Your task to perform on an android device: uninstall "Google Keep" Image 0: 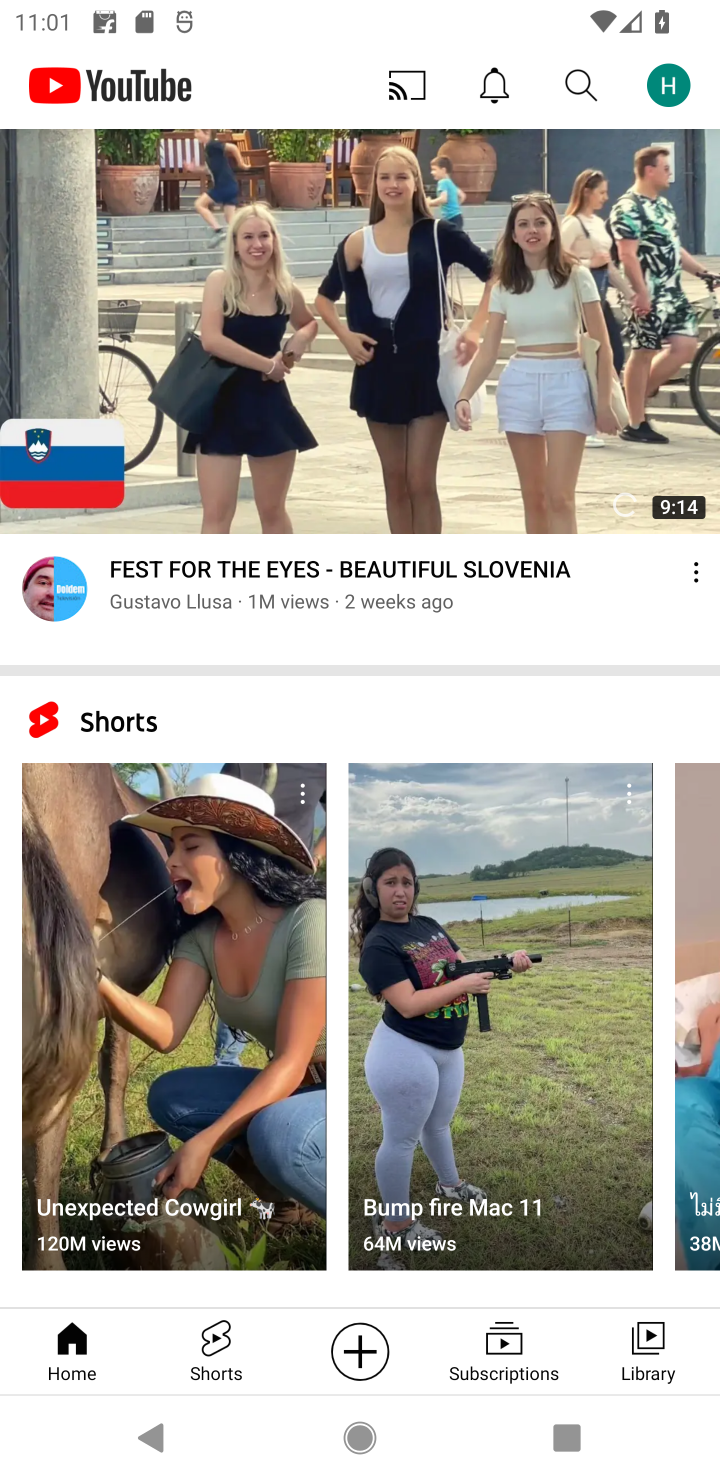
Step 0: press home button
Your task to perform on an android device: uninstall "Google Keep" Image 1: 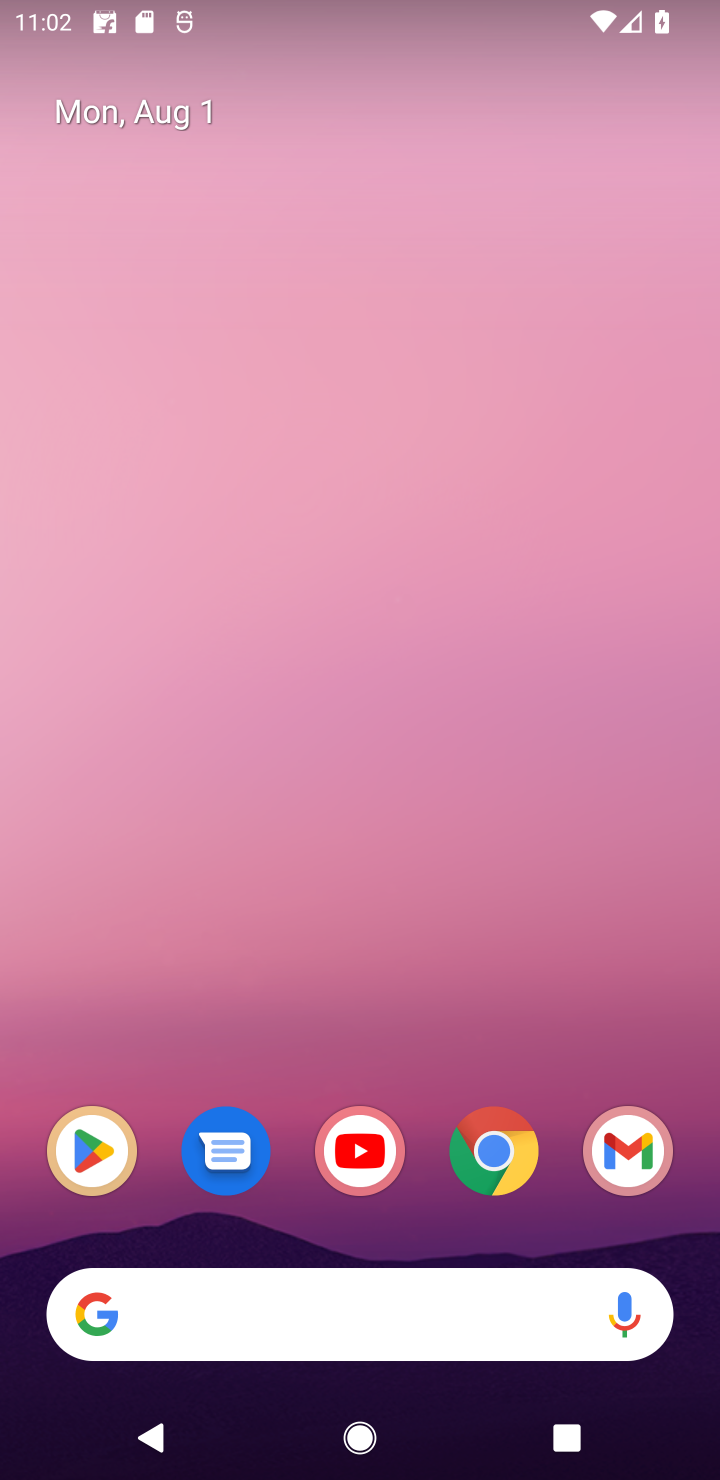
Step 1: press back button
Your task to perform on an android device: uninstall "Google Keep" Image 2: 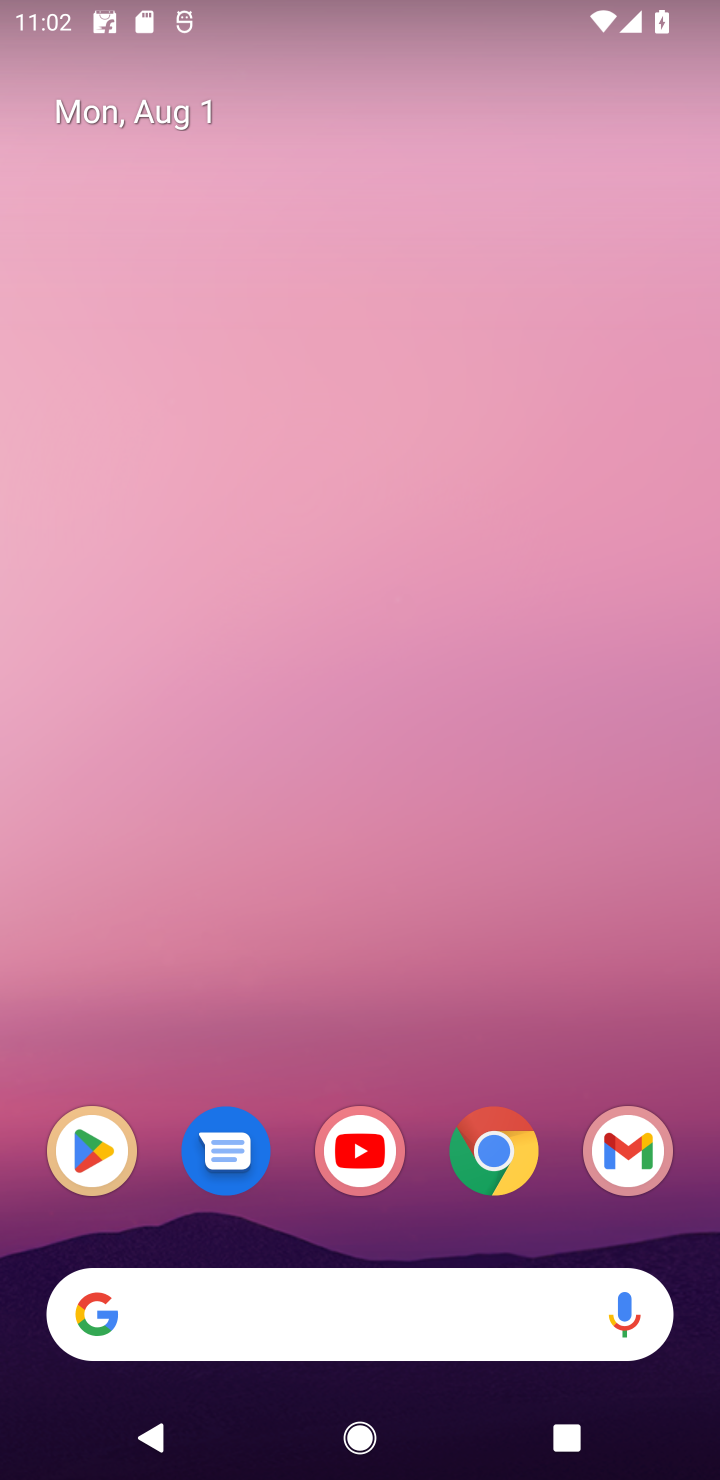
Step 2: click (82, 1155)
Your task to perform on an android device: uninstall "Google Keep" Image 3: 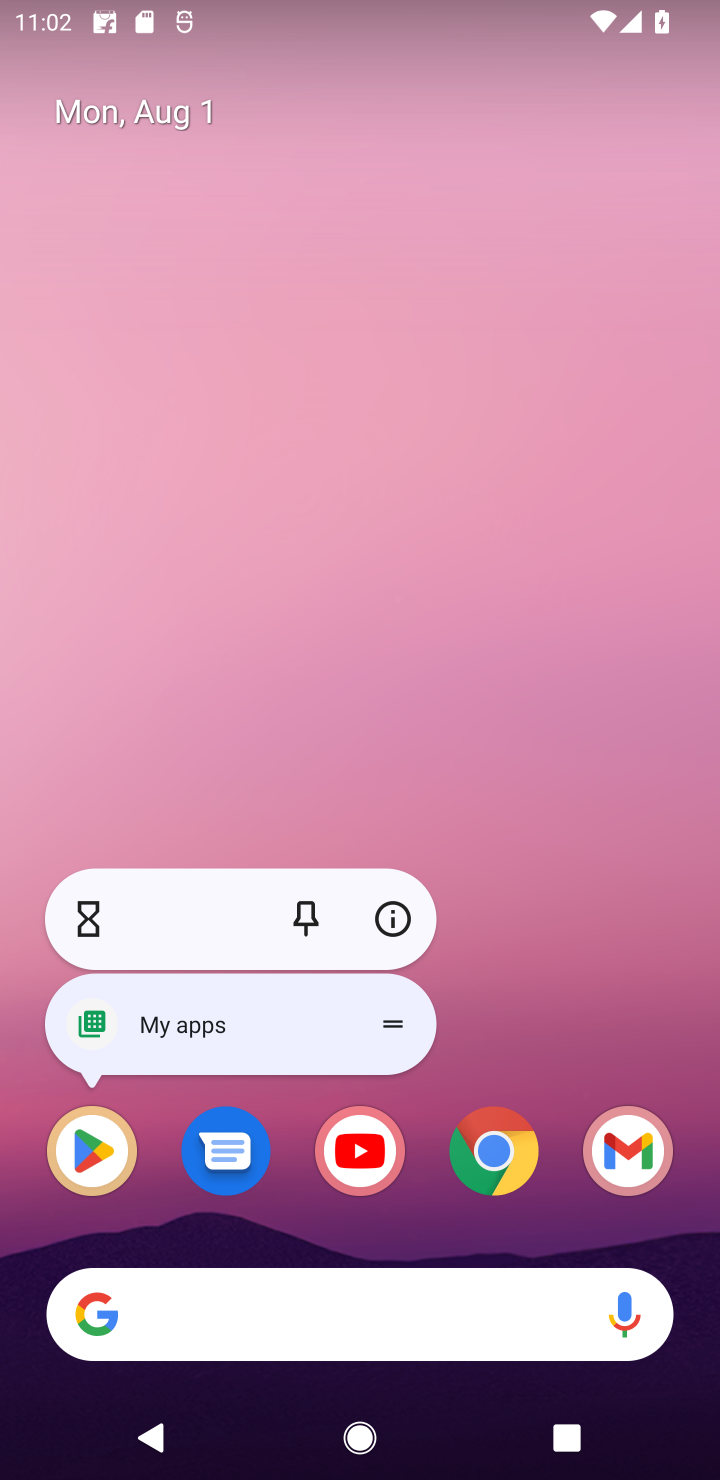
Step 3: click (90, 1160)
Your task to perform on an android device: uninstall "Google Keep" Image 4: 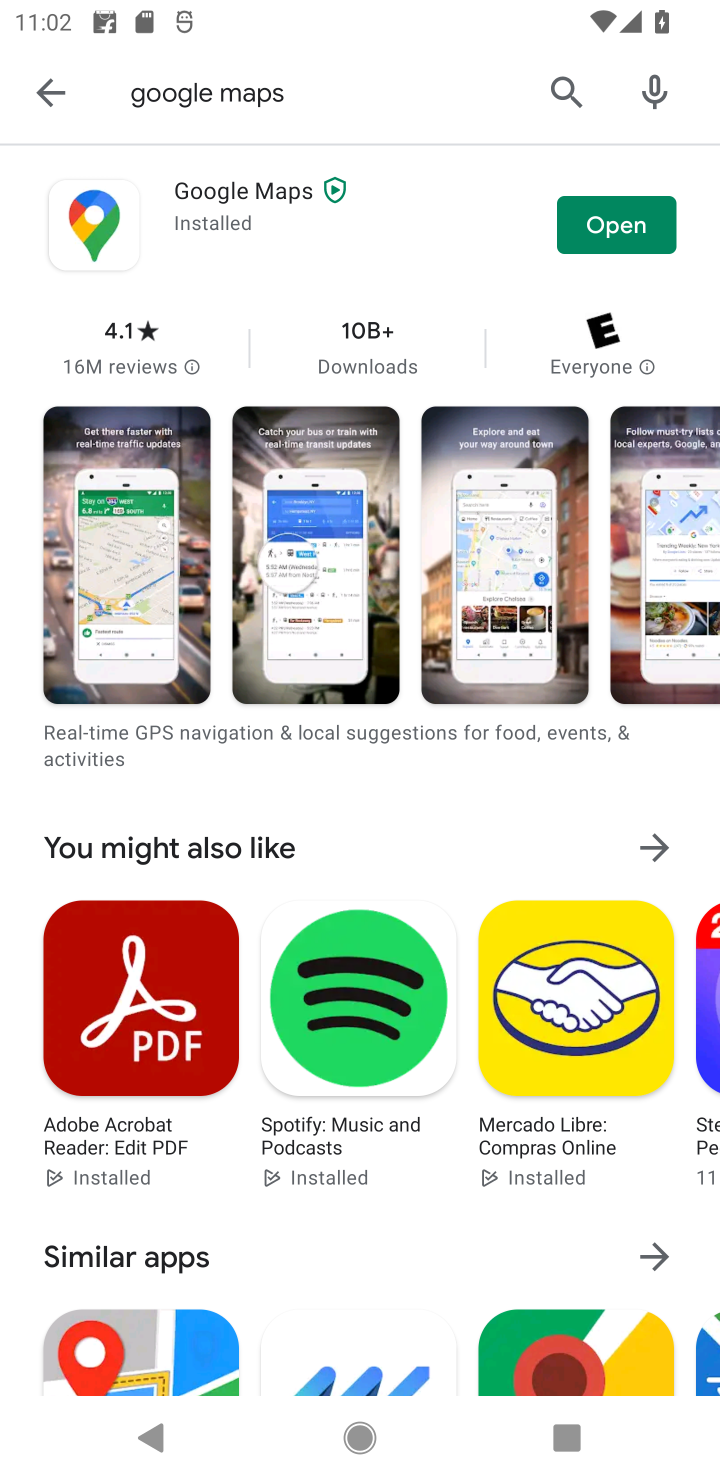
Step 4: click (631, 97)
Your task to perform on an android device: uninstall "Google Keep" Image 5: 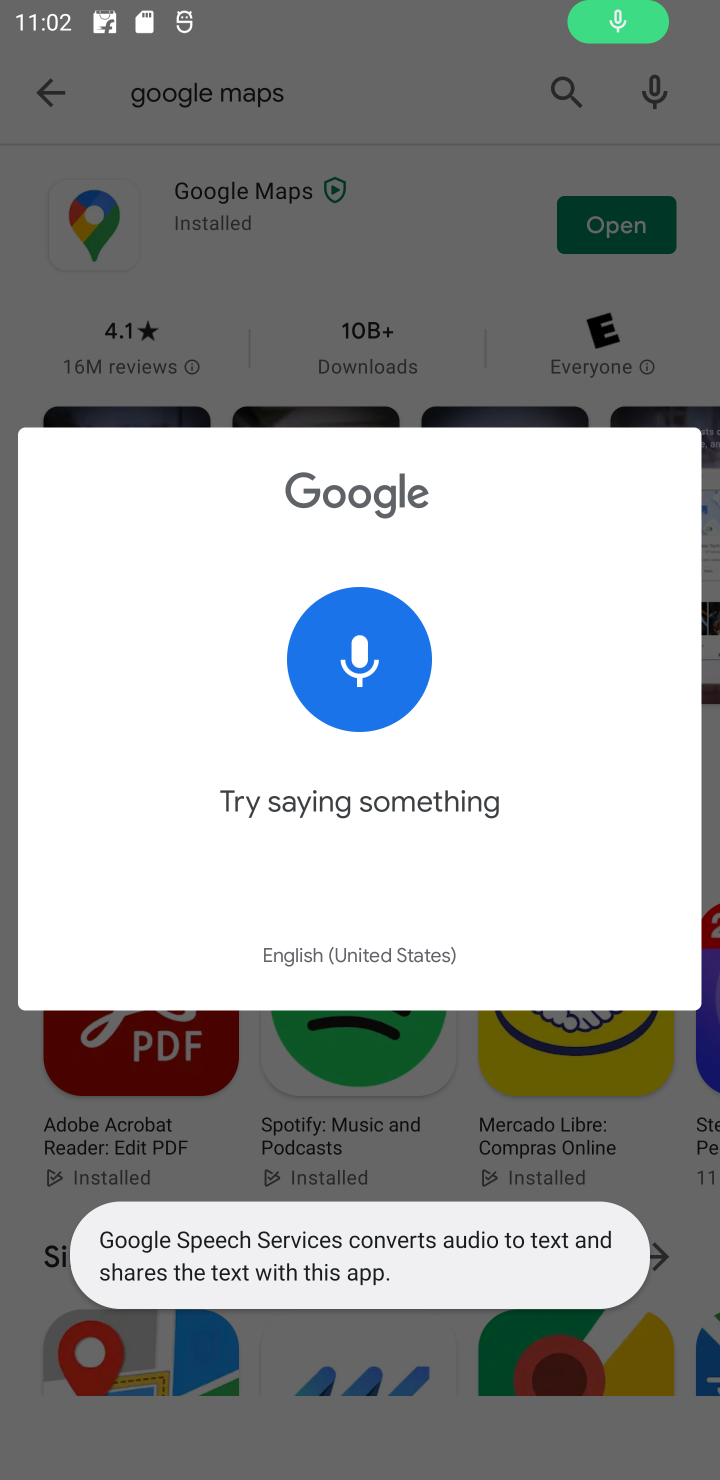
Step 5: click (560, 90)
Your task to perform on an android device: uninstall "Google Keep" Image 6: 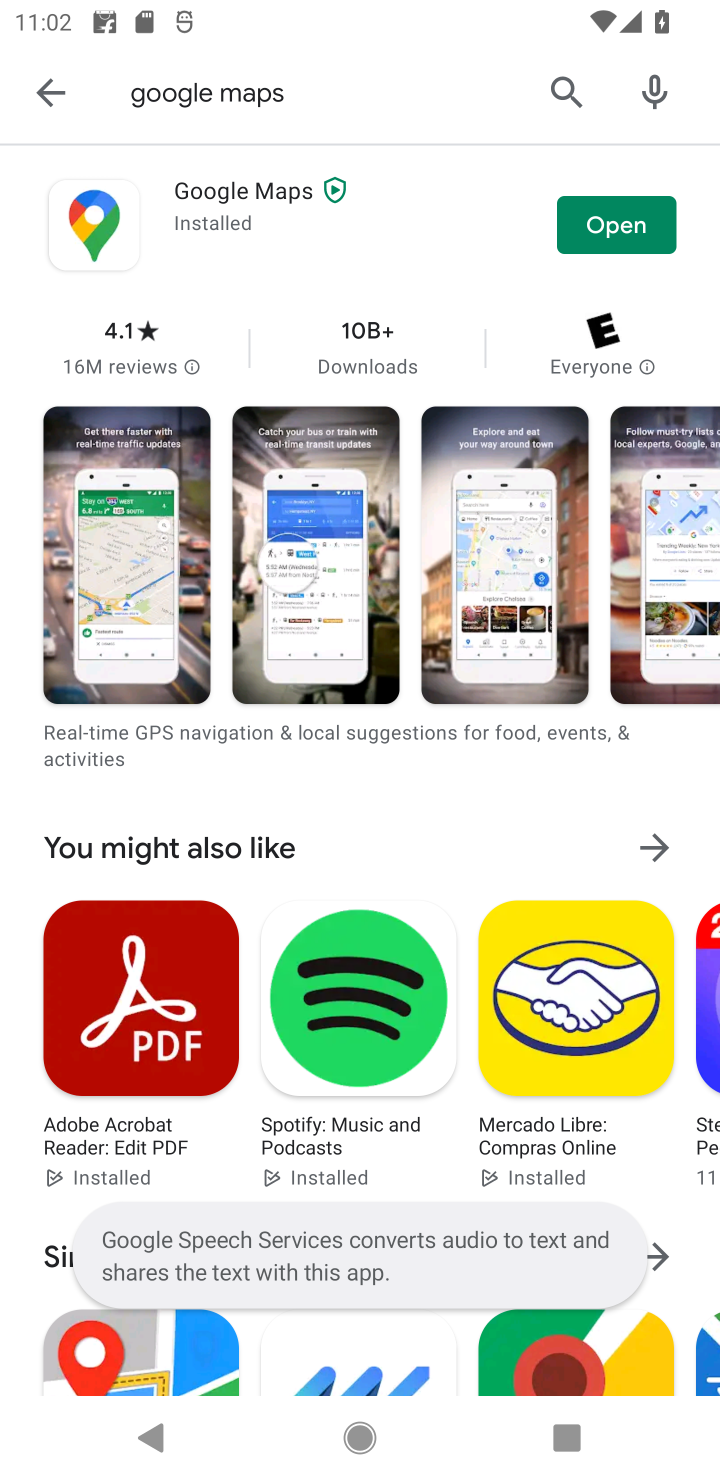
Step 6: click (563, 101)
Your task to perform on an android device: uninstall "Google Keep" Image 7: 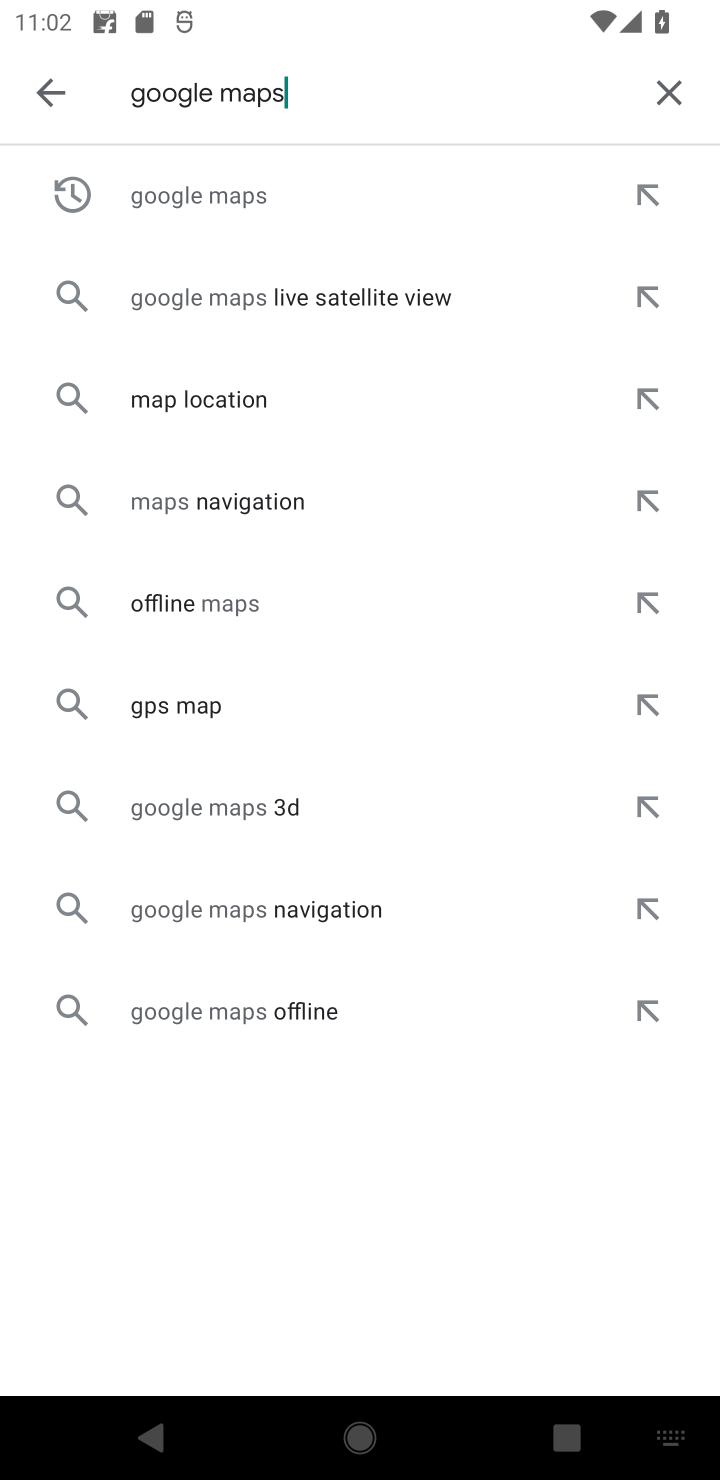
Step 7: click (650, 90)
Your task to perform on an android device: uninstall "Google Keep" Image 8: 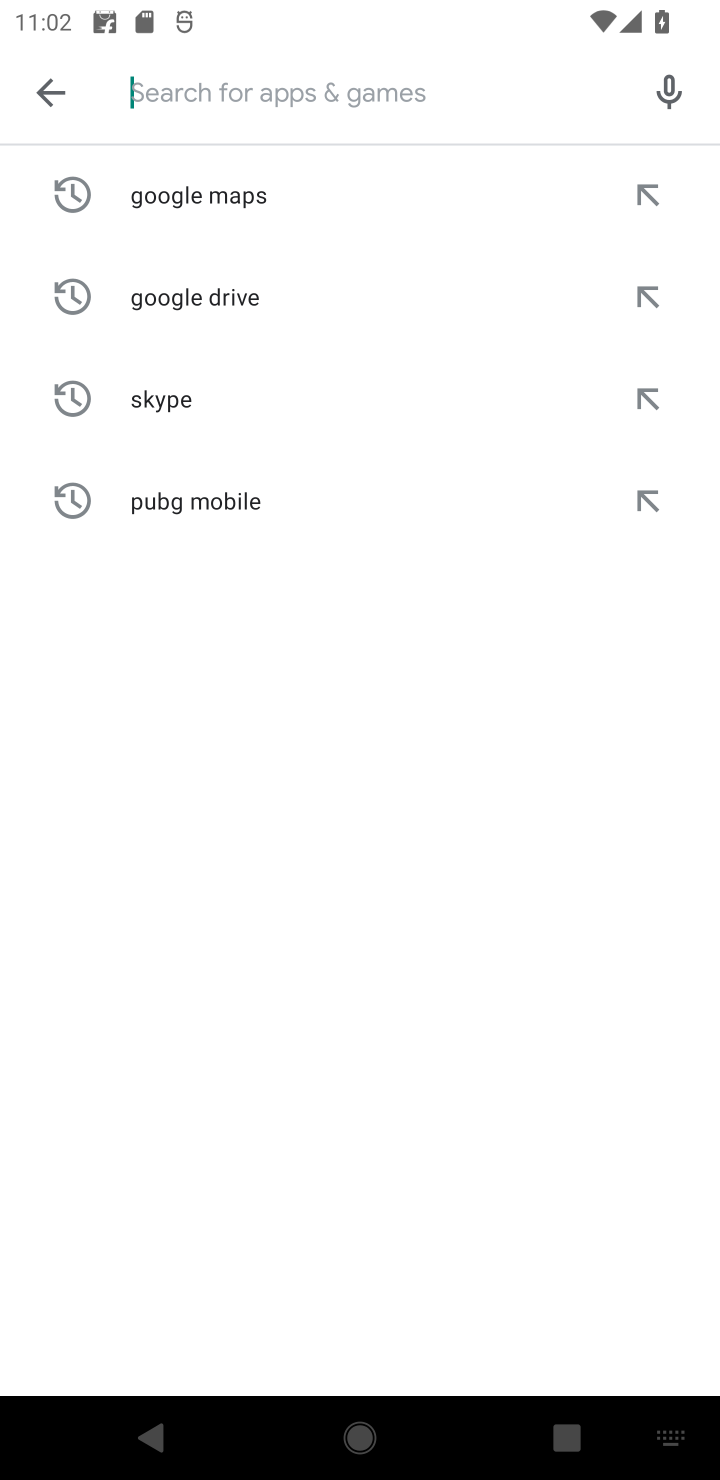
Step 8: click (693, 1317)
Your task to perform on an android device: uninstall "Google Keep" Image 9: 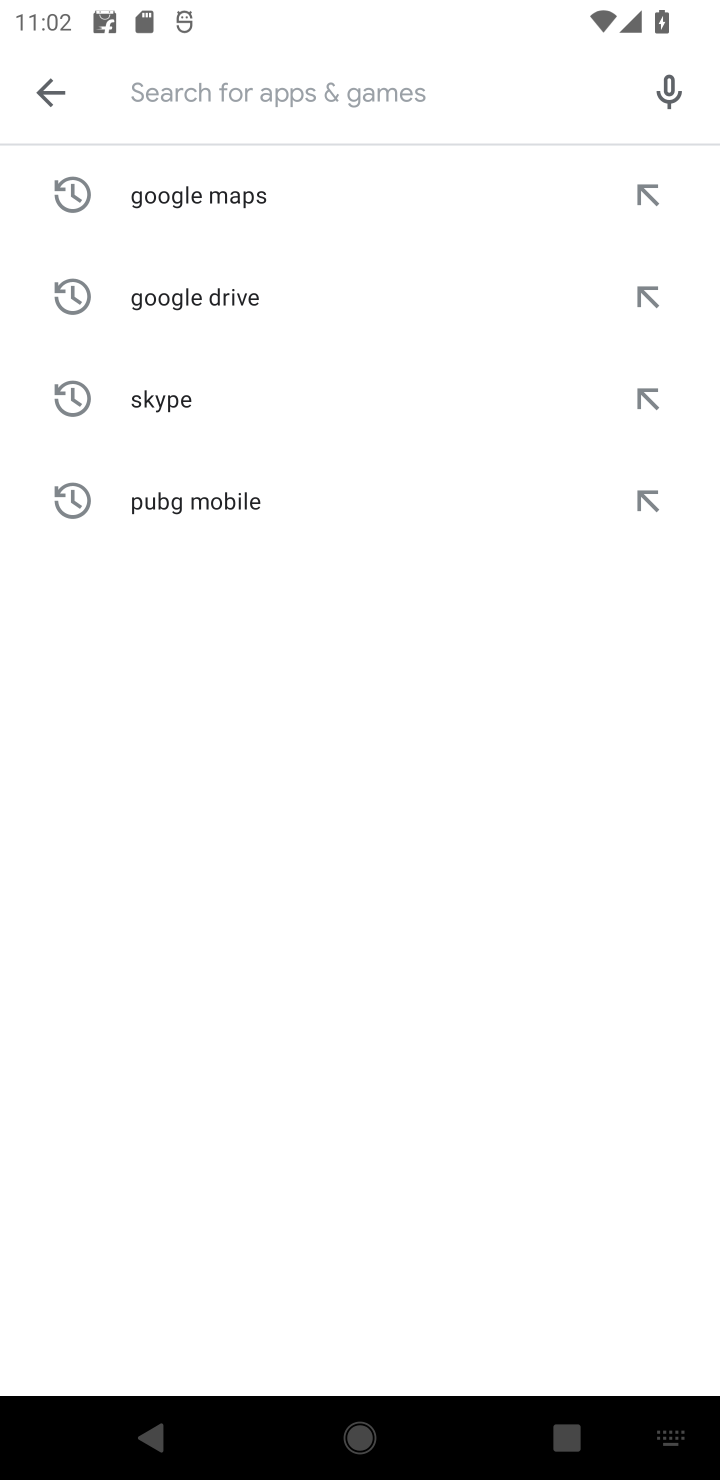
Step 9: type "Google Keep"
Your task to perform on an android device: uninstall "Google Keep" Image 10: 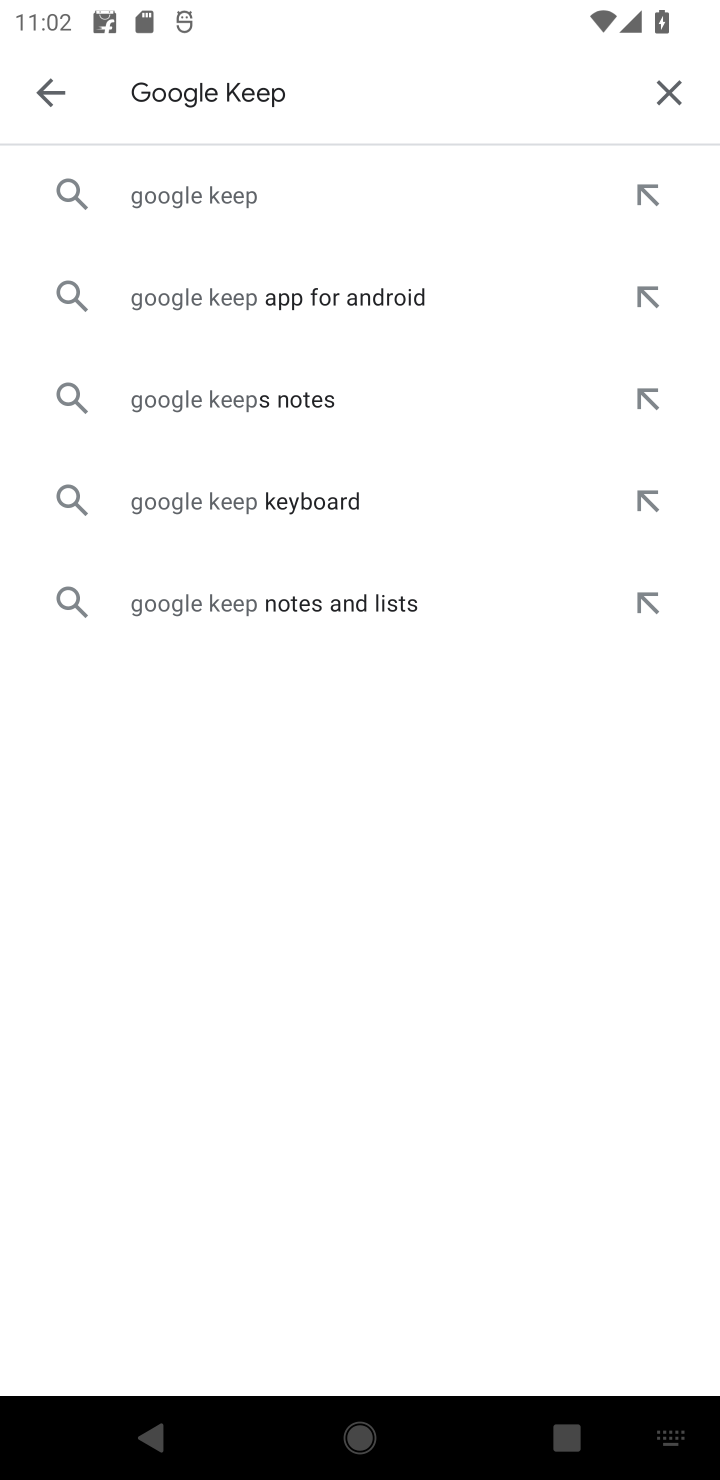
Step 10: click (271, 207)
Your task to perform on an android device: uninstall "Google Keep" Image 11: 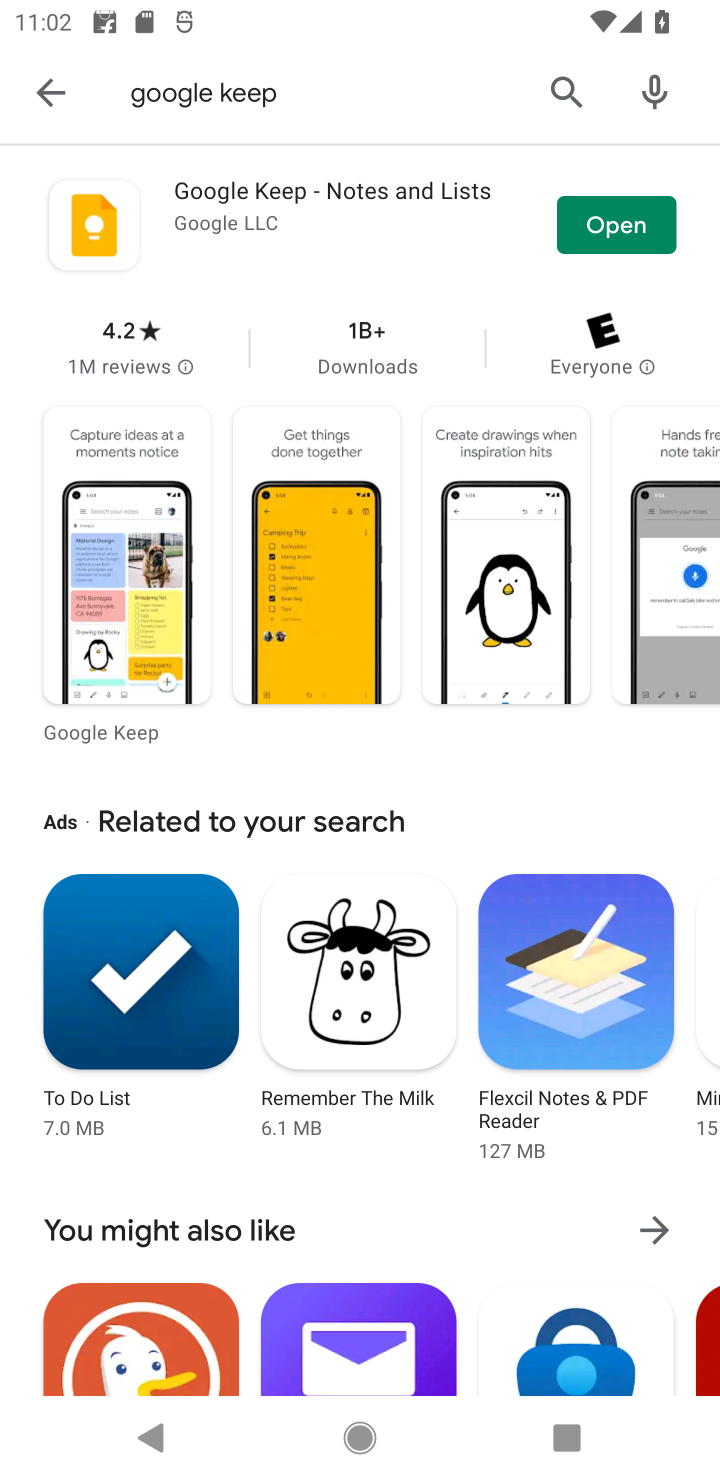
Step 11: click (317, 199)
Your task to perform on an android device: uninstall "Google Keep" Image 12: 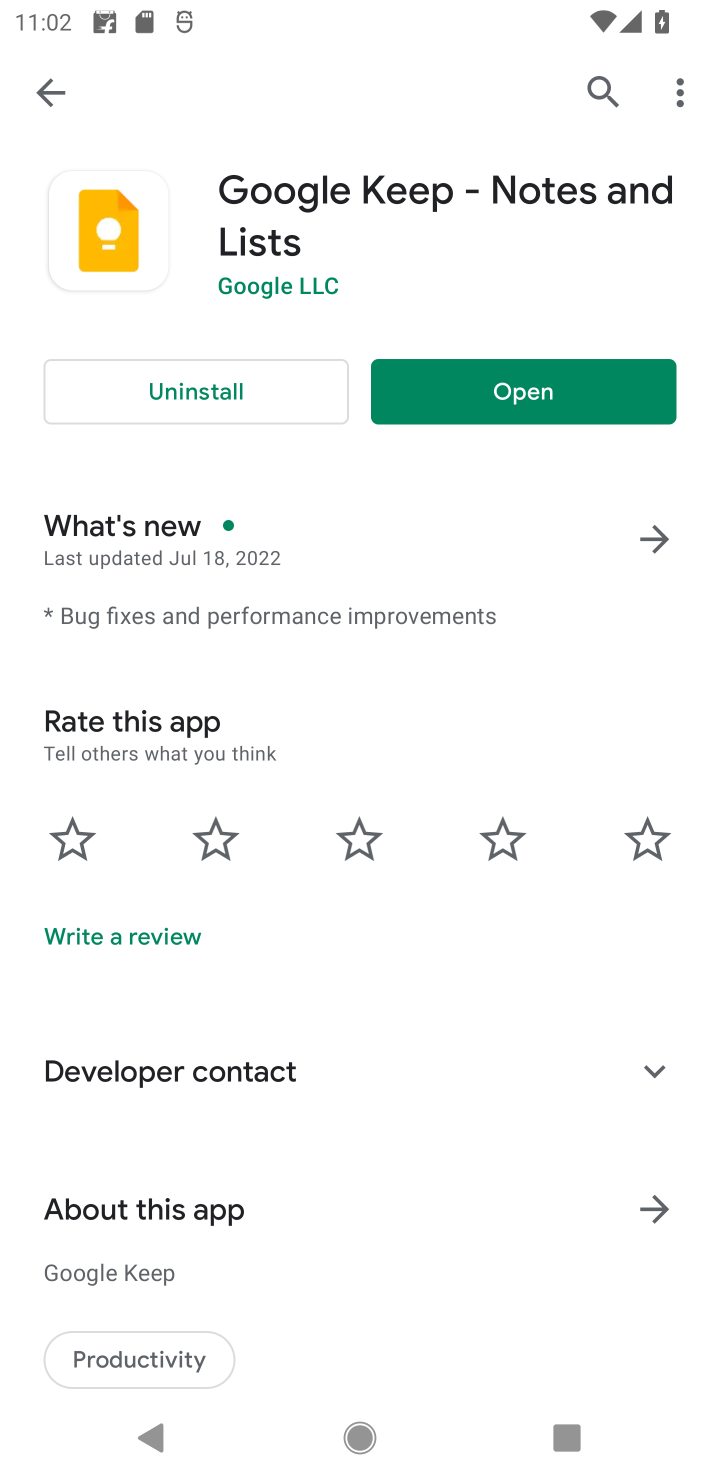
Step 12: click (232, 377)
Your task to perform on an android device: uninstall "Google Keep" Image 13: 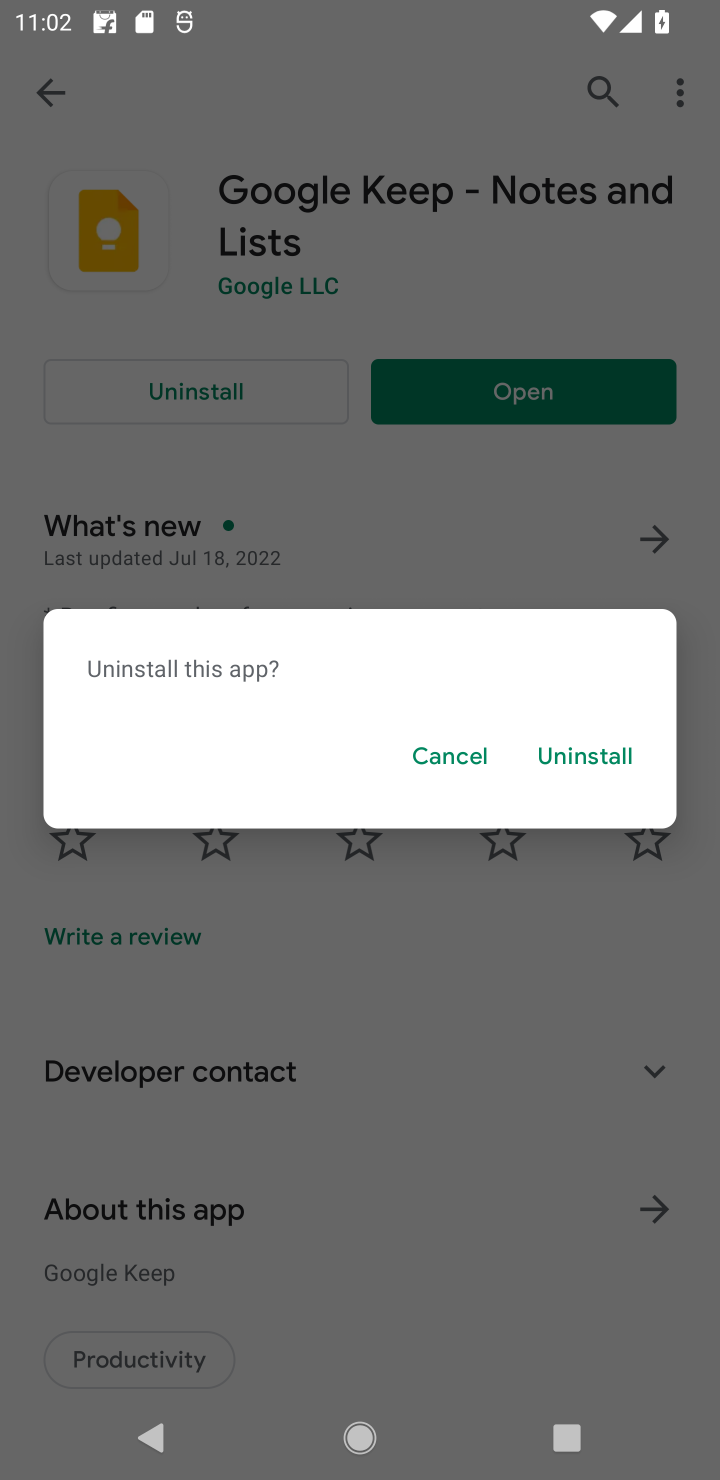
Step 13: click (619, 742)
Your task to perform on an android device: uninstall "Google Keep" Image 14: 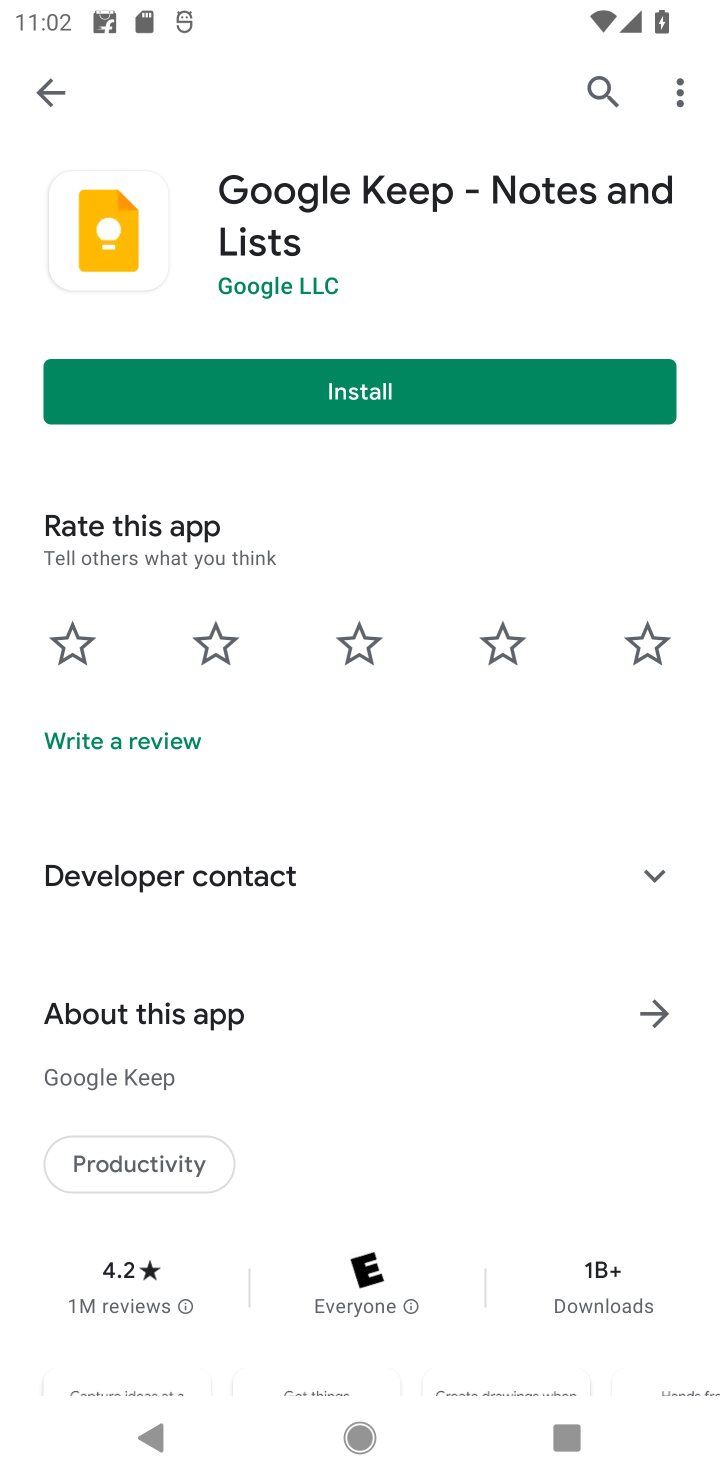
Step 14: task complete